Your task to perform on an android device: turn off notifications in google photos Image 0: 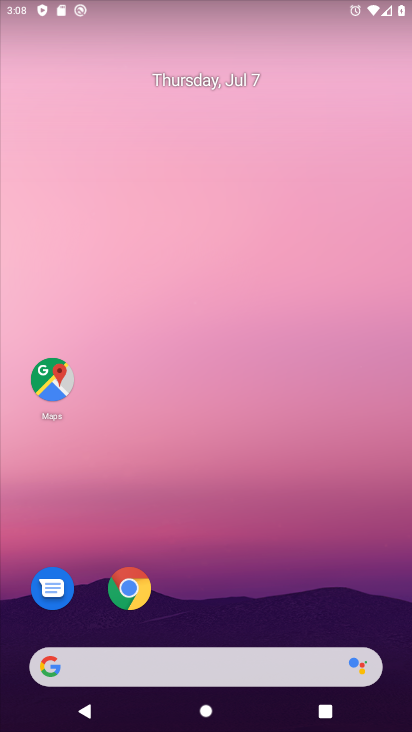
Step 0: drag from (232, 655) to (189, 306)
Your task to perform on an android device: turn off notifications in google photos Image 1: 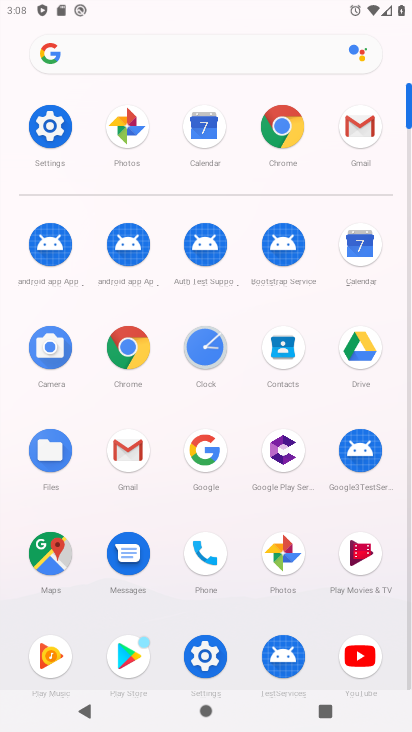
Step 1: click (279, 547)
Your task to perform on an android device: turn off notifications in google photos Image 2: 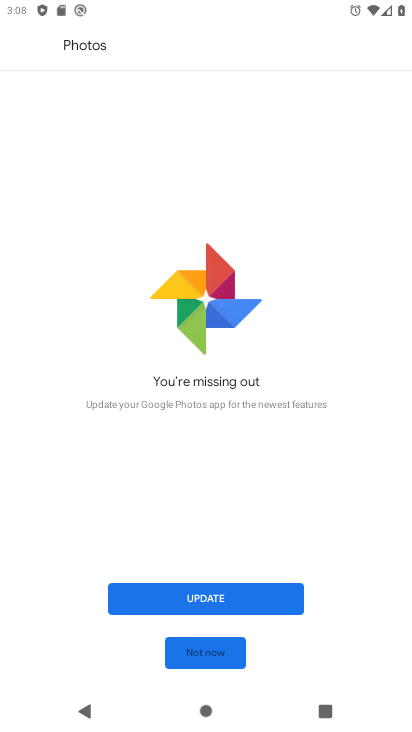
Step 2: click (179, 599)
Your task to perform on an android device: turn off notifications in google photos Image 3: 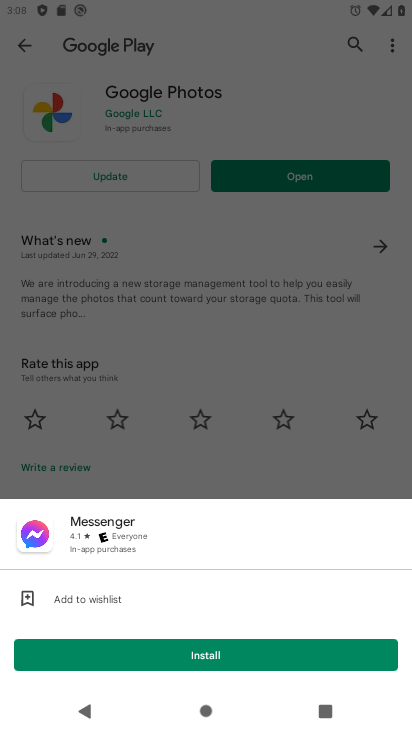
Step 3: click (278, 181)
Your task to perform on an android device: turn off notifications in google photos Image 4: 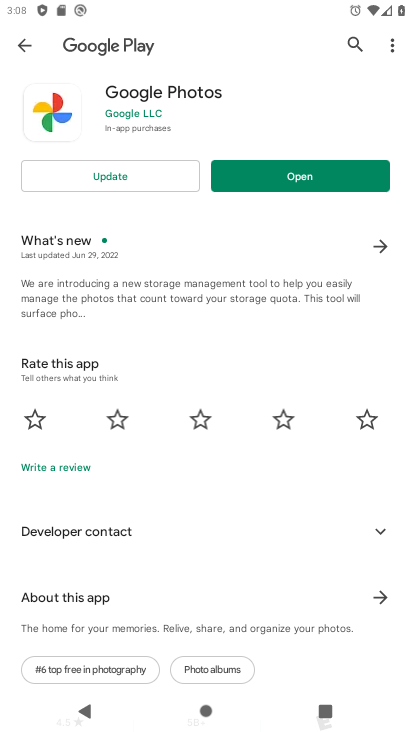
Step 4: click (103, 180)
Your task to perform on an android device: turn off notifications in google photos Image 5: 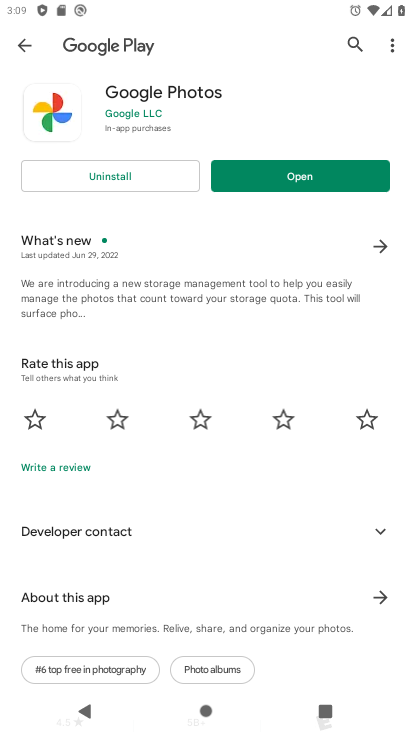
Step 5: click (269, 169)
Your task to perform on an android device: turn off notifications in google photos Image 6: 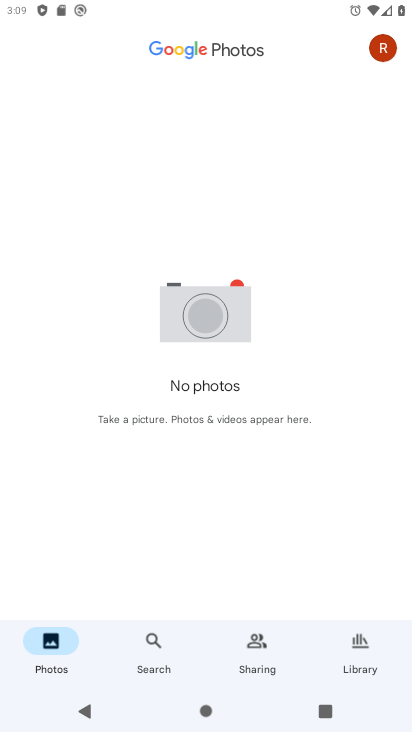
Step 6: click (384, 52)
Your task to perform on an android device: turn off notifications in google photos Image 7: 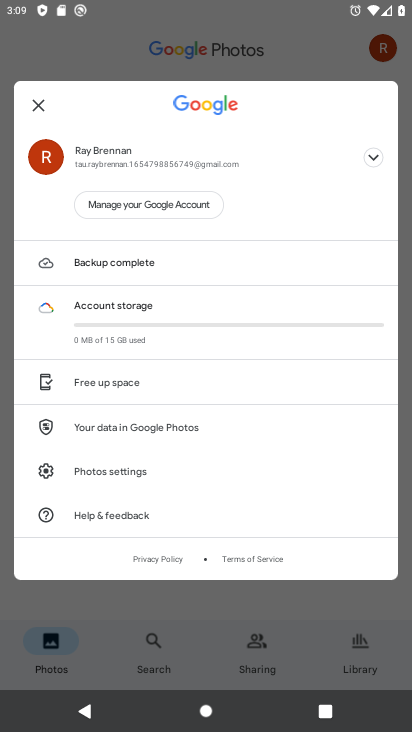
Step 7: click (123, 470)
Your task to perform on an android device: turn off notifications in google photos Image 8: 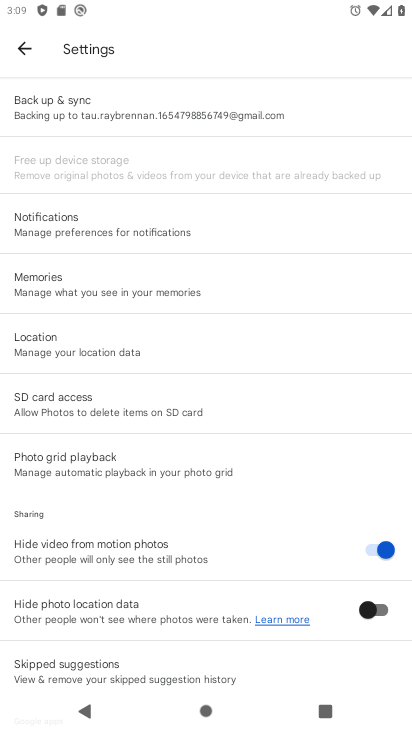
Step 8: click (90, 229)
Your task to perform on an android device: turn off notifications in google photos Image 9: 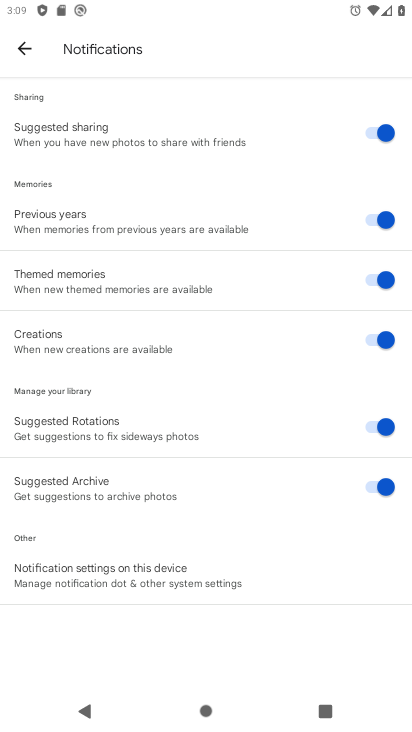
Step 9: click (131, 567)
Your task to perform on an android device: turn off notifications in google photos Image 10: 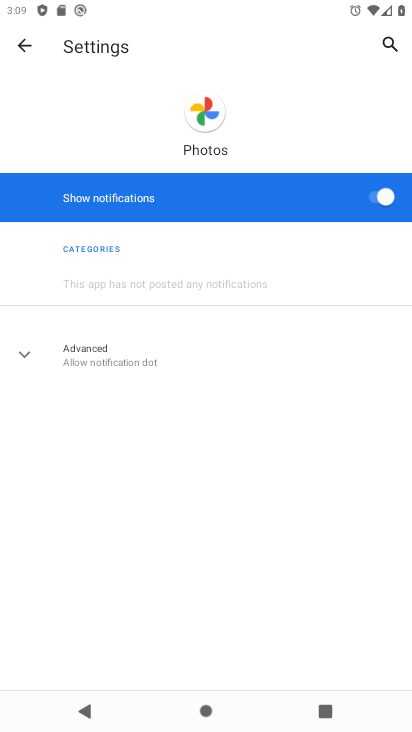
Step 10: click (374, 203)
Your task to perform on an android device: turn off notifications in google photos Image 11: 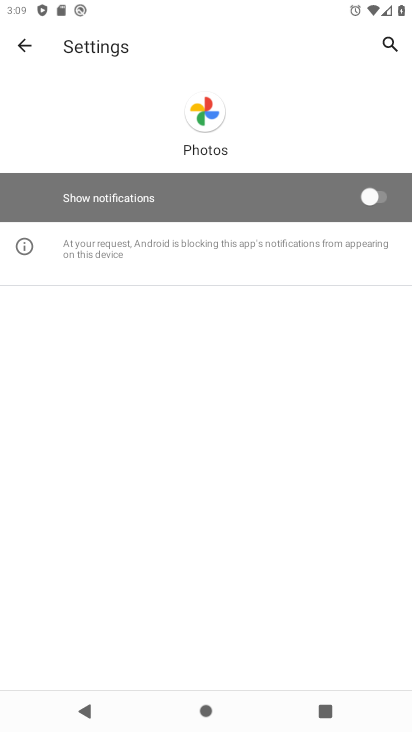
Step 11: task complete